Your task to perform on an android device: Search for beats solo 3 on bestbuy.com, select the first entry, and add it to the cart. Image 0: 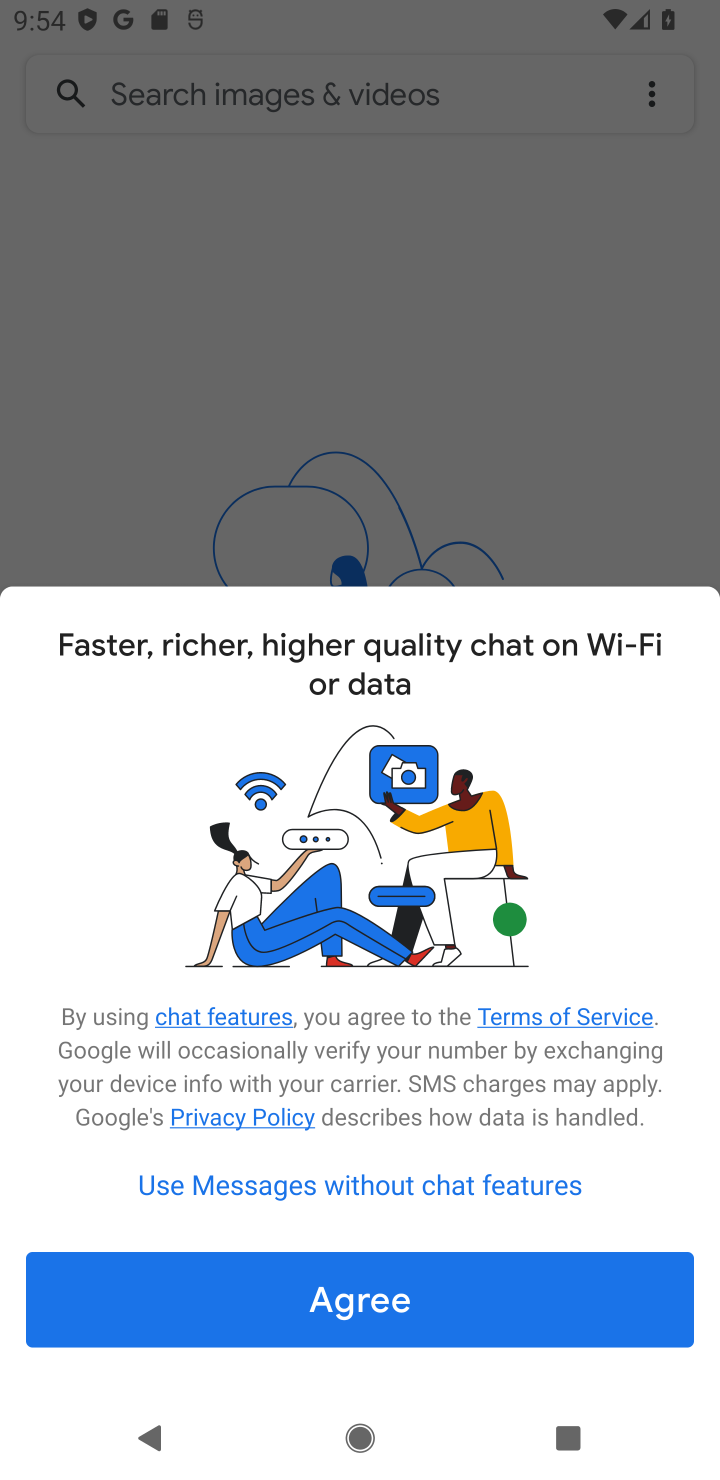
Step 0: press home button
Your task to perform on an android device: Search for beats solo 3 on bestbuy.com, select the first entry, and add it to the cart. Image 1: 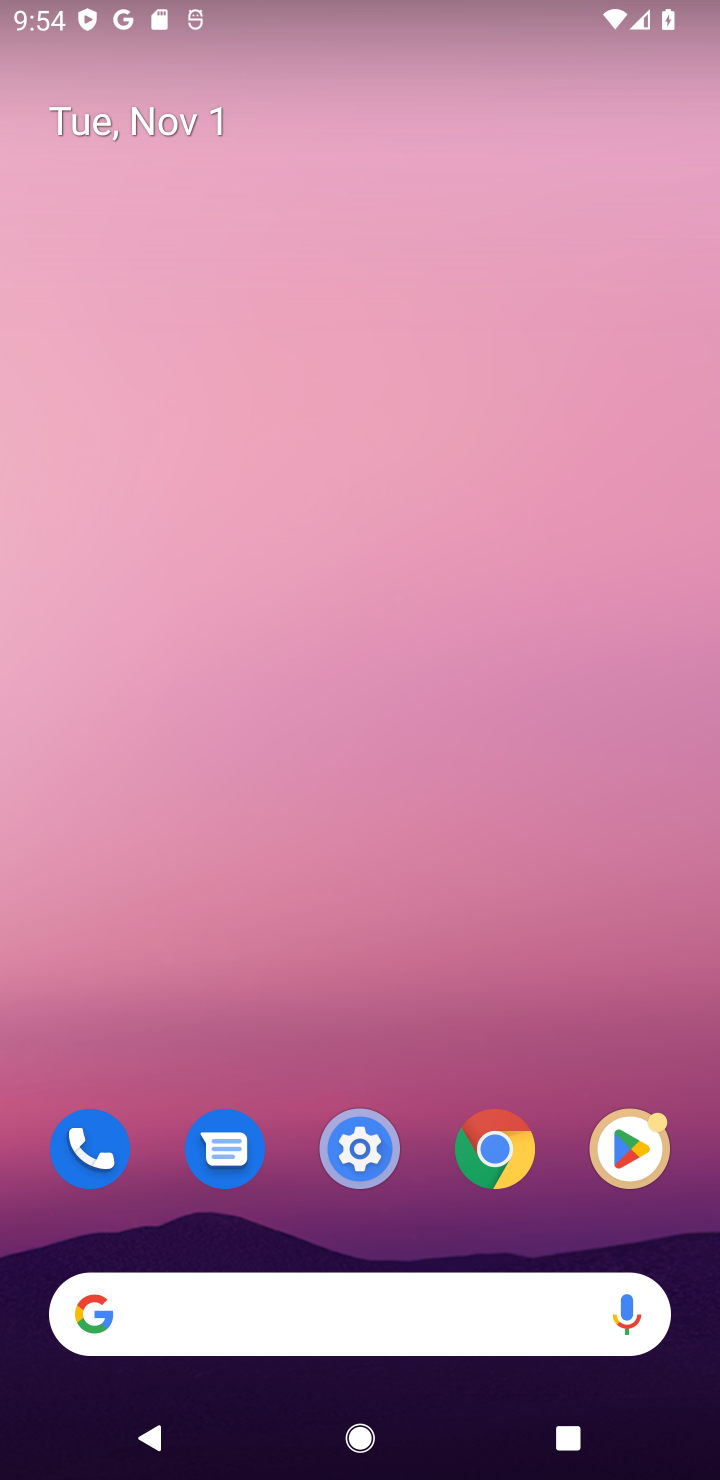
Step 1: click (132, 1302)
Your task to perform on an android device: Search for beats solo 3 on bestbuy.com, select the first entry, and add it to the cart. Image 2: 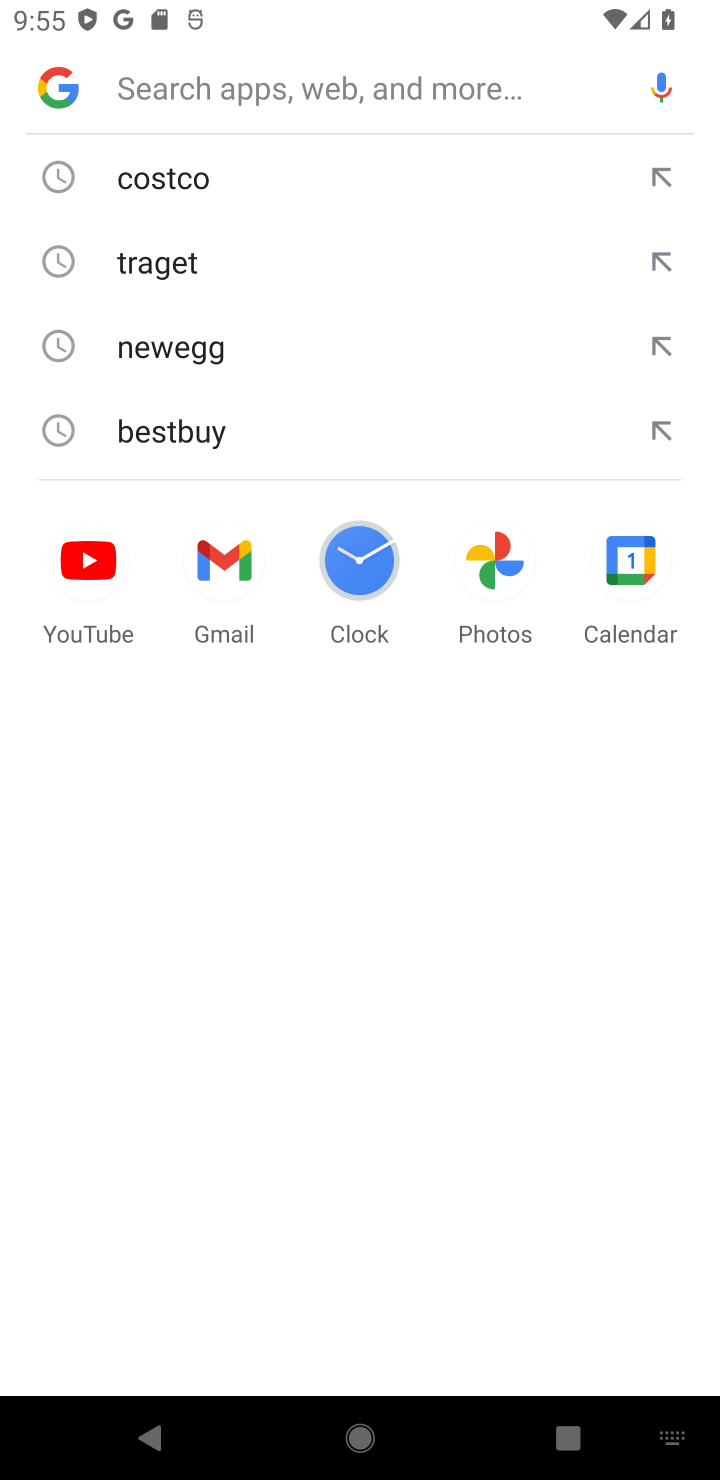
Step 2: type "bestbuy.com"
Your task to perform on an android device: Search for beats solo 3 on bestbuy.com, select the first entry, and add it to the cart. Image 3: 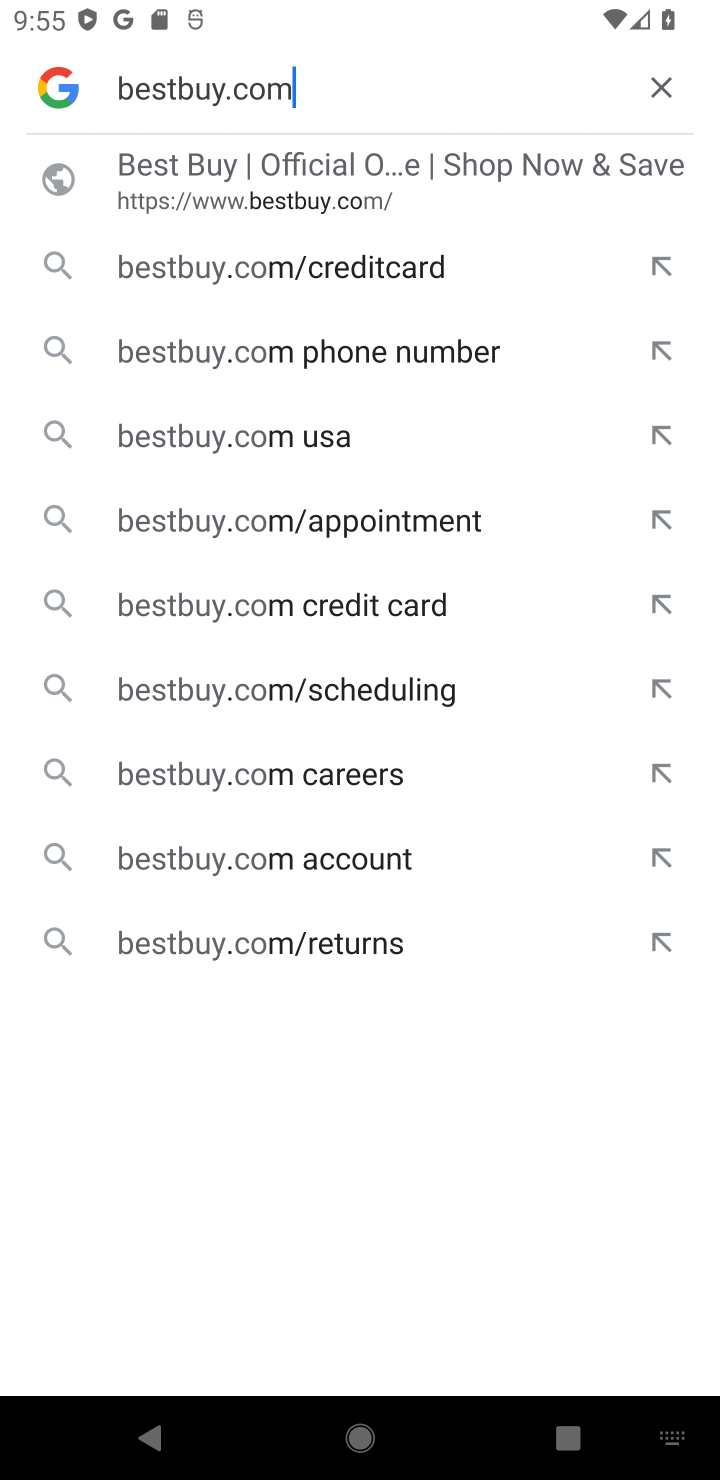
Step 3: press enter
Your task to perform on an android device: Search for beats solo 3 on bestbuy.com, select the first entry, and add it to the cart. Image 4: 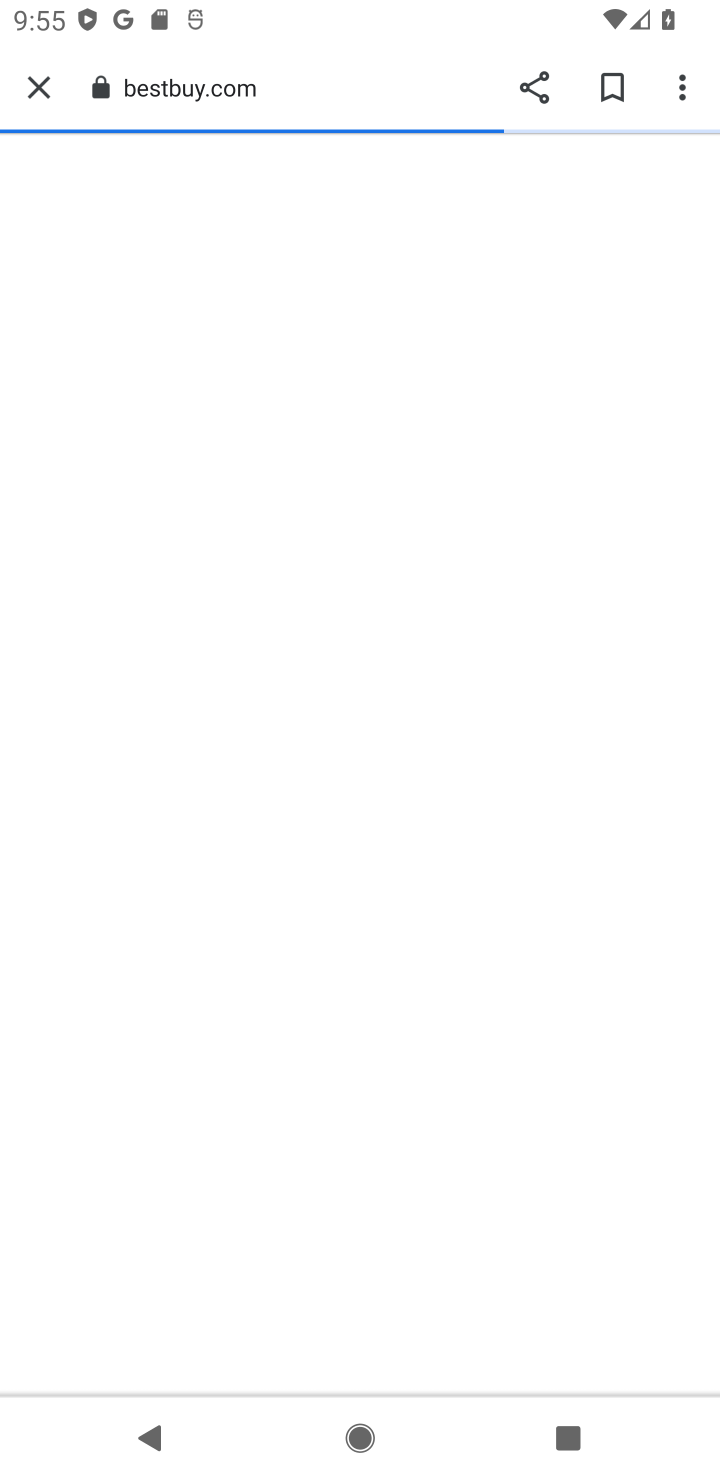
Step 4: press enter
Your task to perform on an android device: Search for beats solo 3 on bestbuy.com, select the first entry, and add it to the cart. Image 5: 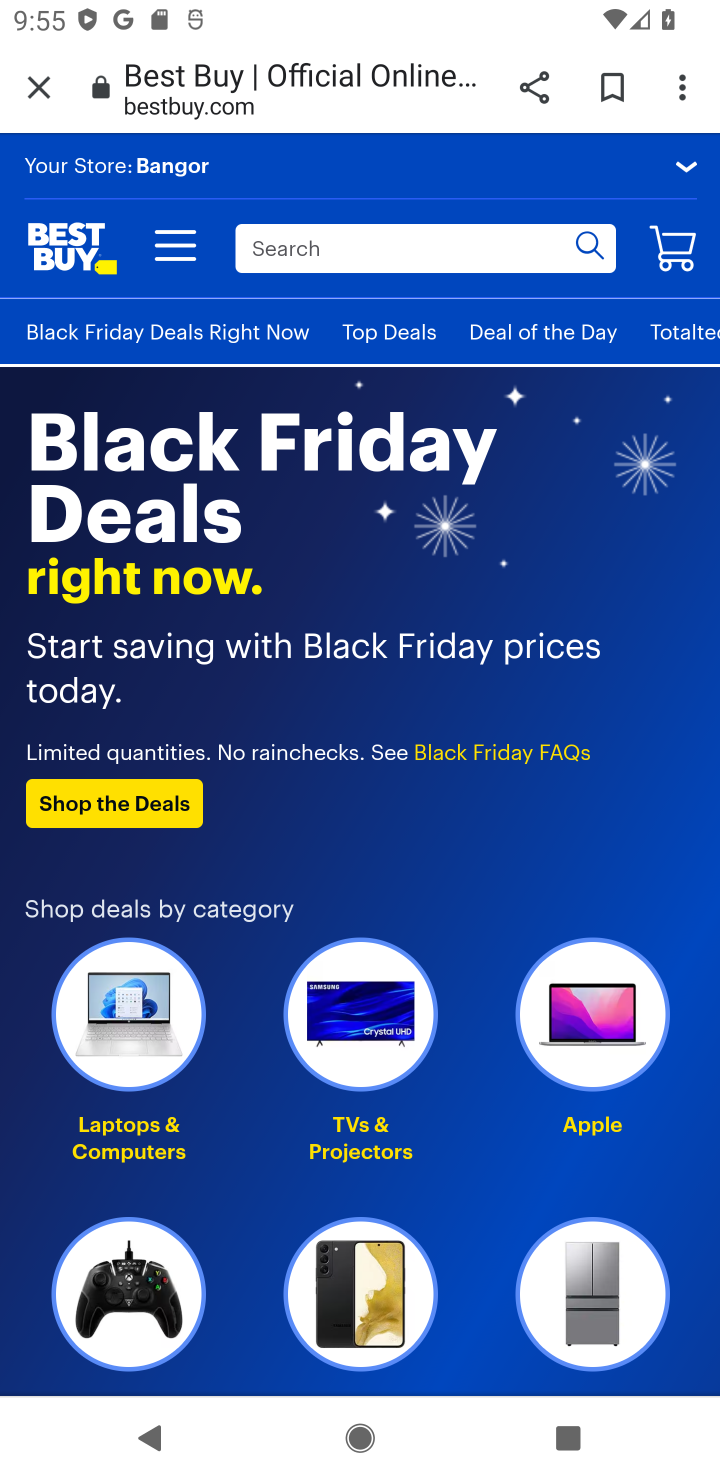
Step 5: click (293, 253)
Your task to perform on an android device: Search for beats solo 3 on bestbuy.com, select the first entry, and add it to the cart. Image 6: 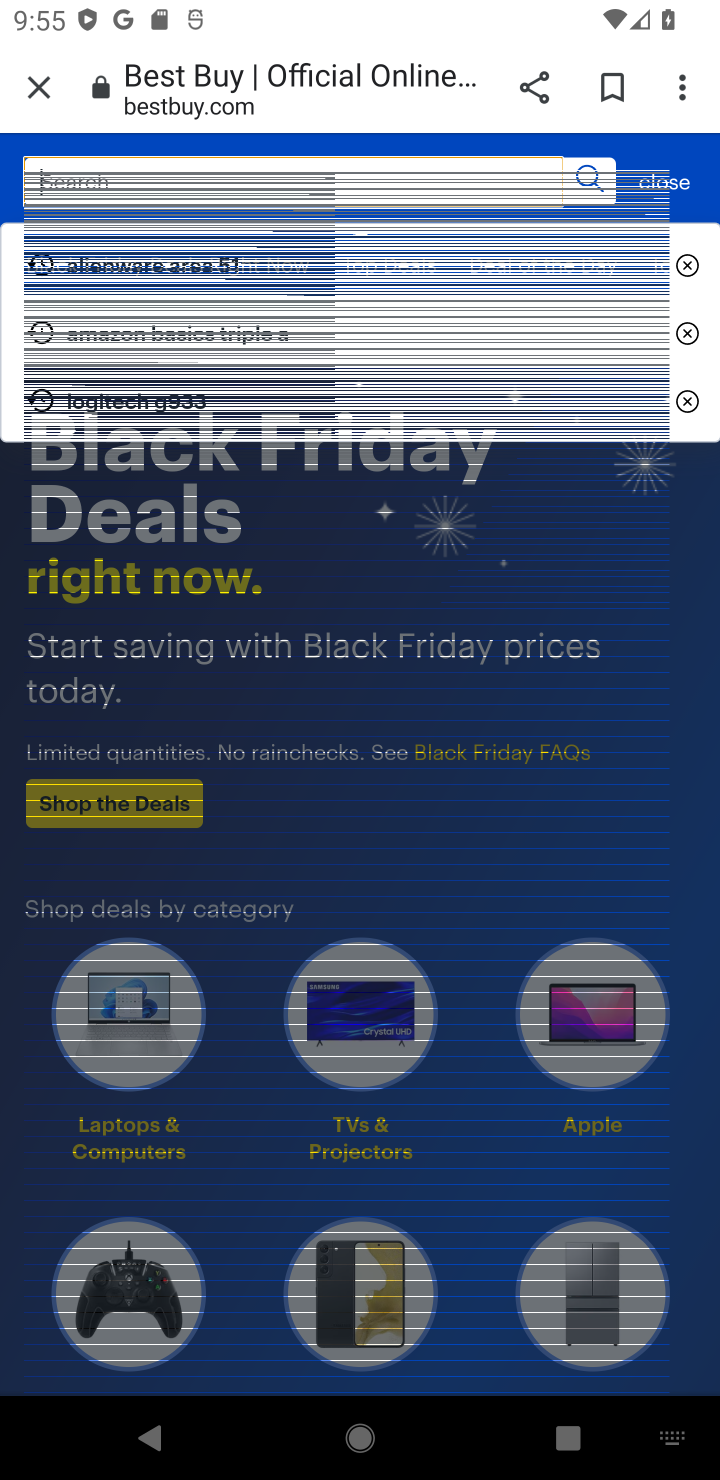
Step 6: type "beats solo 3"
Your task to perform on an android device: Search for beats solo 3 on bestbuy.com, select the first entry, and add it to the cart. Image 7: 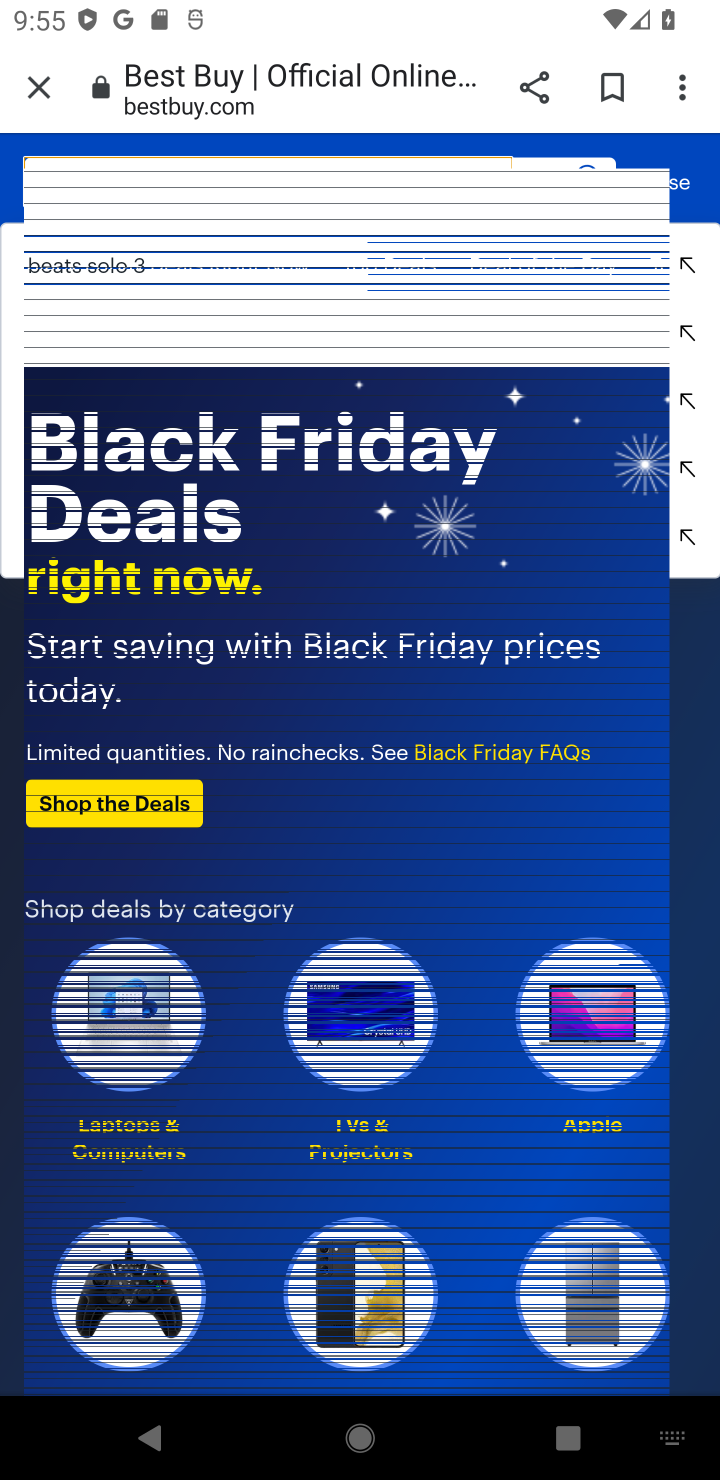
Step 7: press enter
Your task to perform on an android device: Search for beats solo 3 on bestbuy.com, select the first entry, and add it to the cart. Image 8: 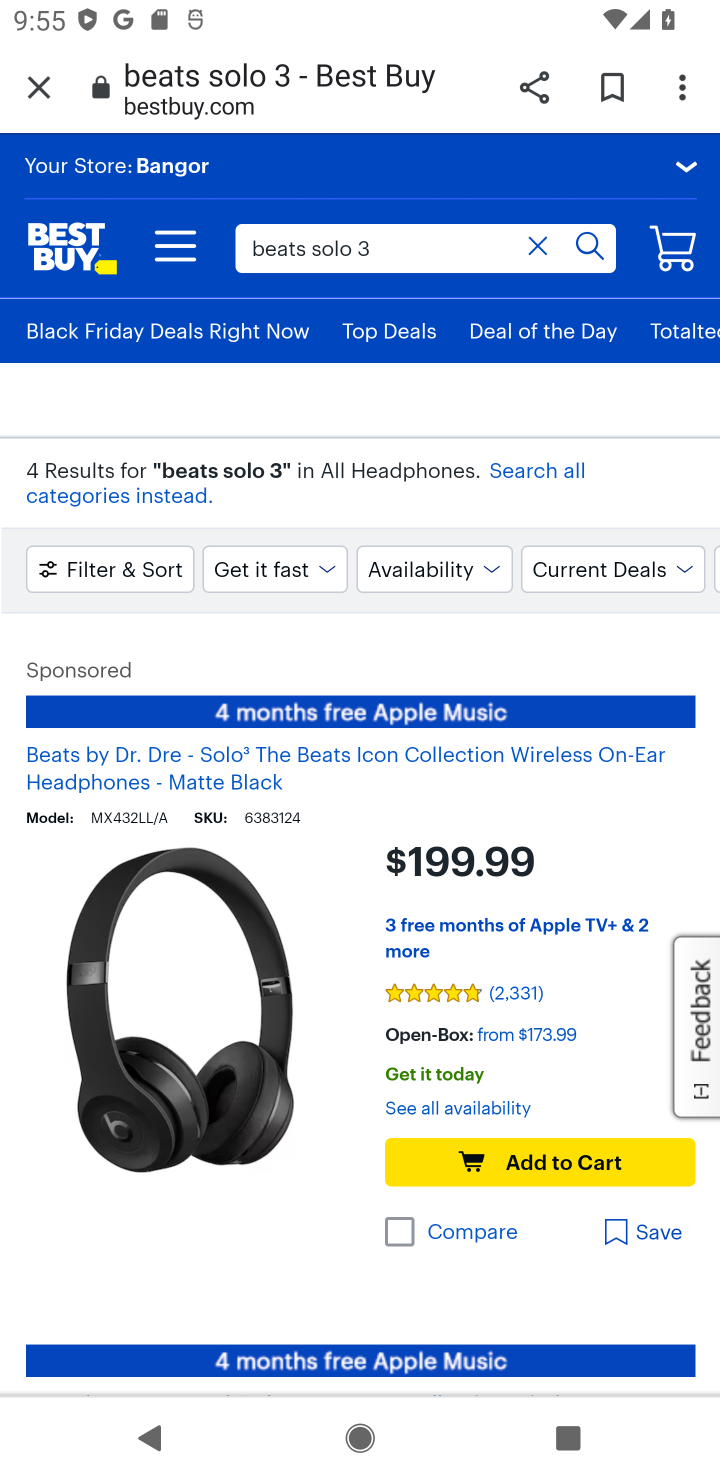
Step 8: drag from (331, 1167) to (320, 665)
Your task to perform on an android device: Search for beats solo 3 on bestbuy.com, select the first entry, and add it to the cart. Image 9: 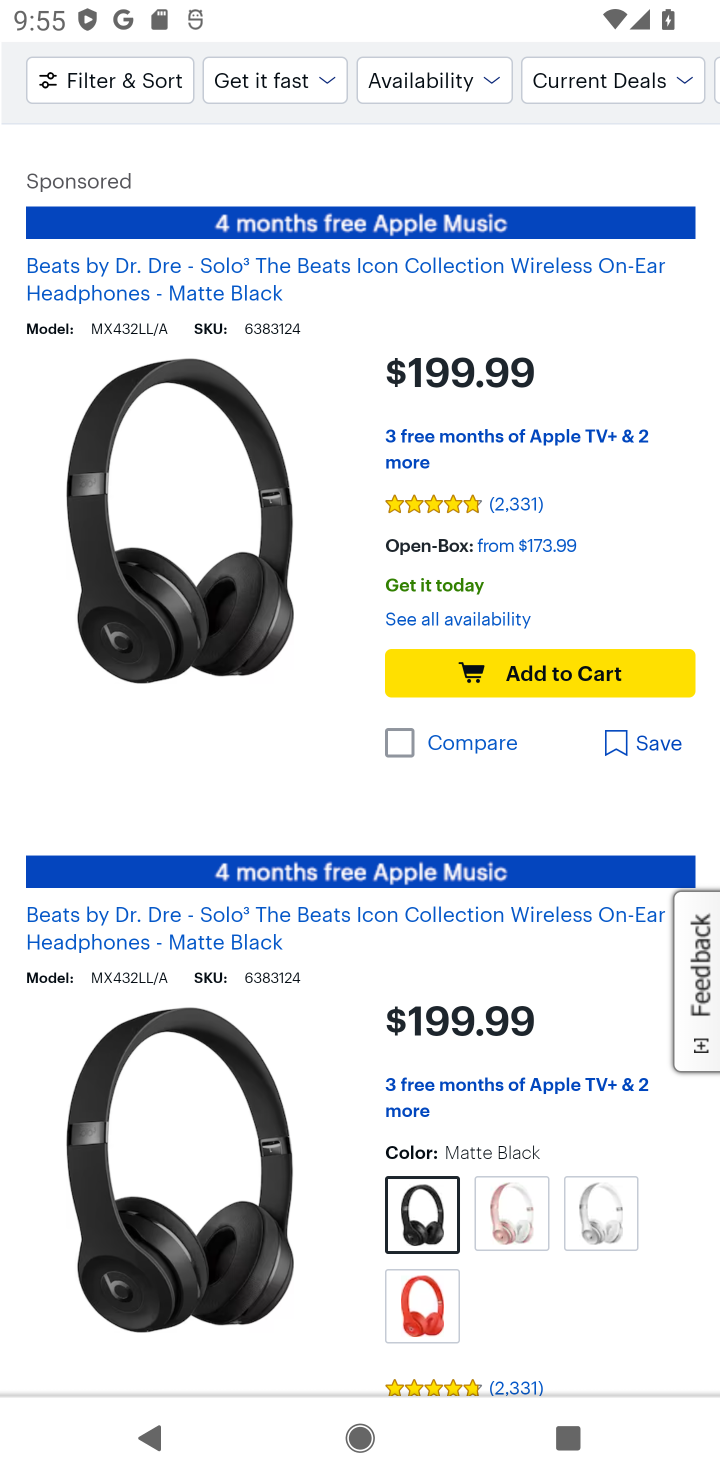
Step 9: click (533, 669)
Your task to perform on an android device: Search for beats solo 3 on bestbuy.com, select the first entry, and add it to the cart. Image 10: 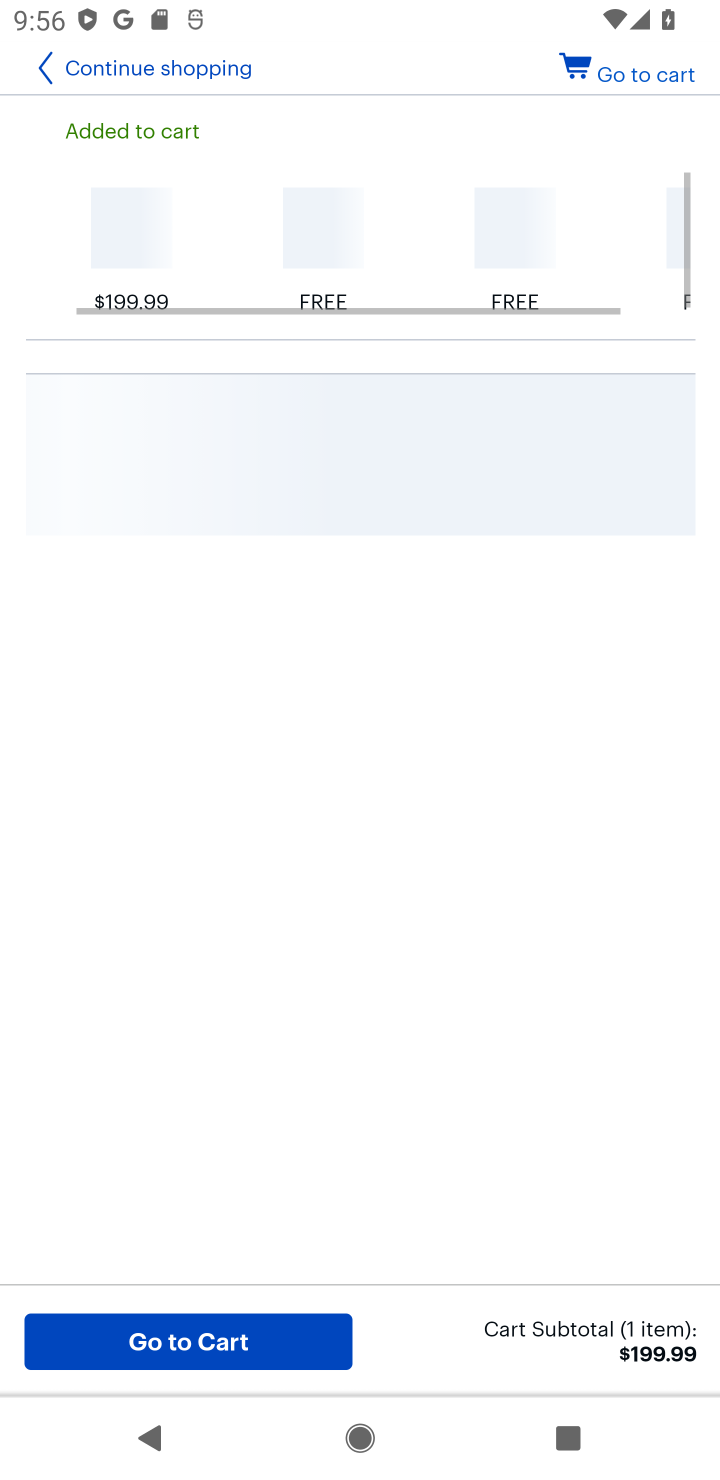
Step 10: task complete